Your task to perform on an android device: Go to settings Image 0: 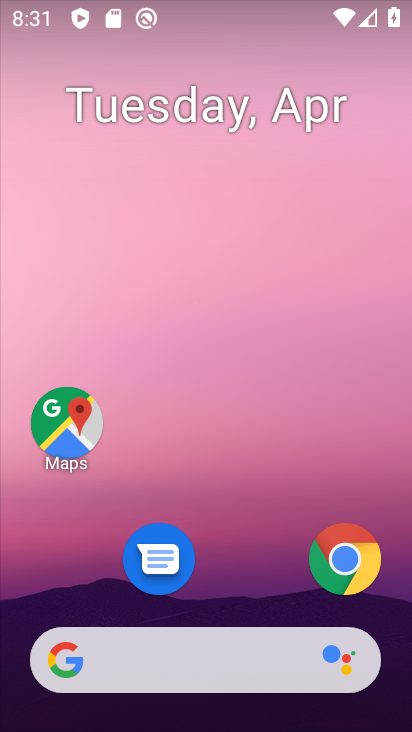
Step 0: click (255, 219)
Your task to perform on an android device: Go to settings Image 1: 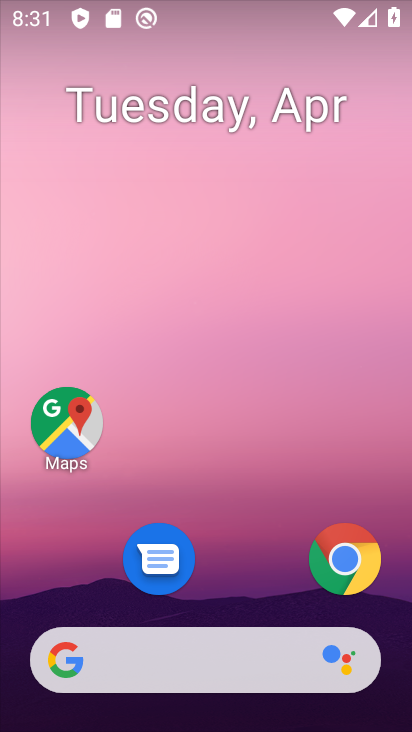
Step 1: drag from (301, 695) to (284, 252)
Your task to perform on an android device: Go to settings Image 2: 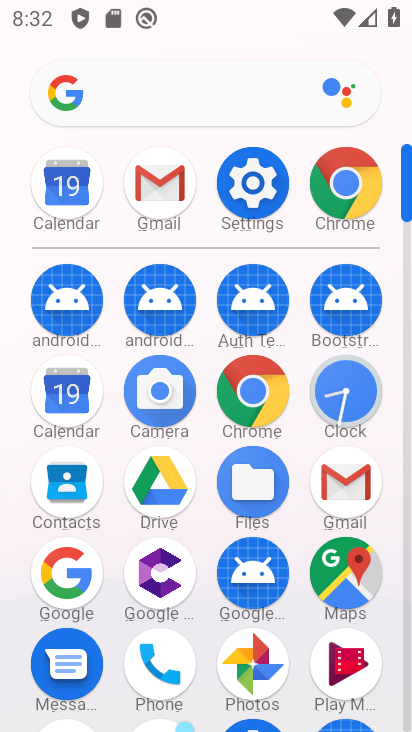
Step 2: click (264, 179)
Your task to perform on an android device: Go to settings Image 3: 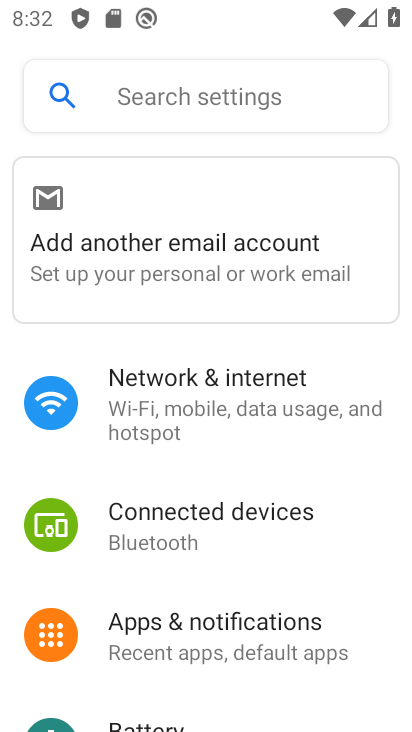
Step 3: click (176, 378)
Your task to perform on an android device: Go to settings Image 4: 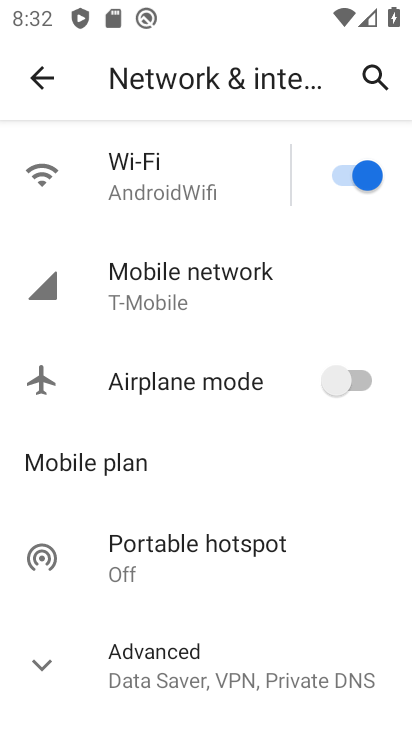
Step 4: task complete